Your task to perform on an android device: toggle pop-ups in chrome Image 0: 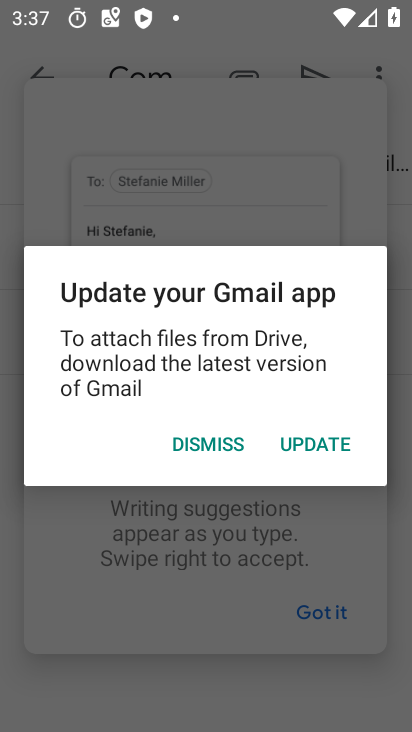
Step 0: press home button
Your task to perform on an android device: toggle pop-ups in chrome Image 1: 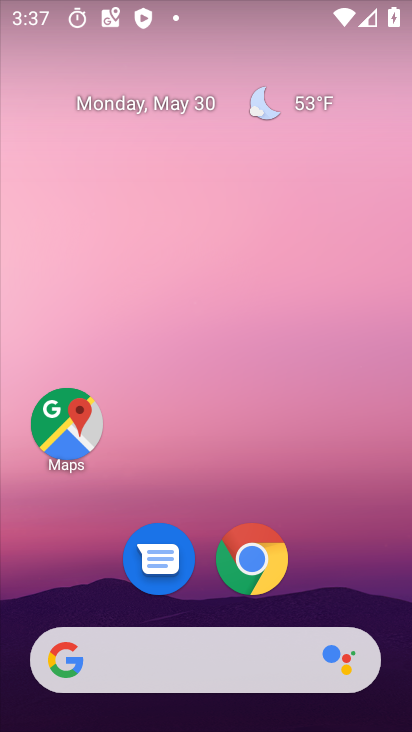
Step 1: click (256, 558)
Your task to perform on an android device: toggle pop-ups in chrome Image 2: 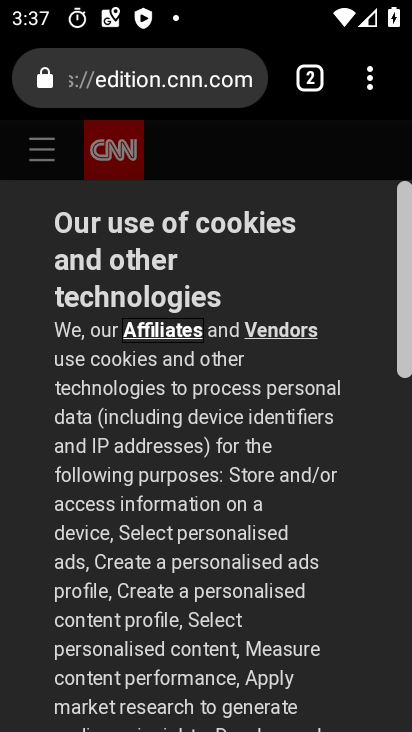
Step 2: click (371, 88)
Your task to perform on an android device: toggle pop-ups in chrome Image 3: 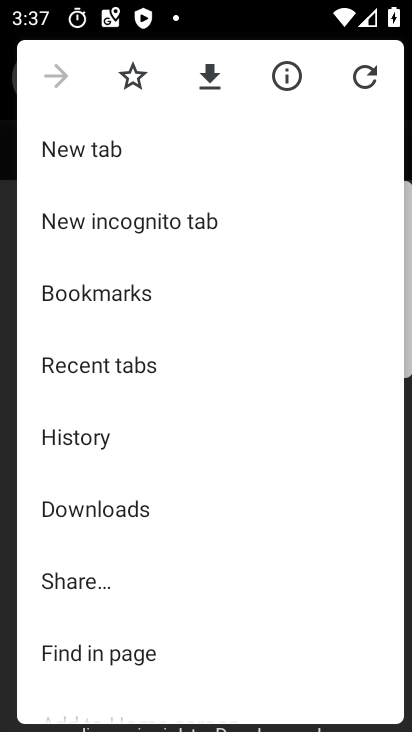
Step 3: drag from (110, 670) to (110, 417)
Your task to perform on an android device: toggle pop-ups in chrome Image 4: 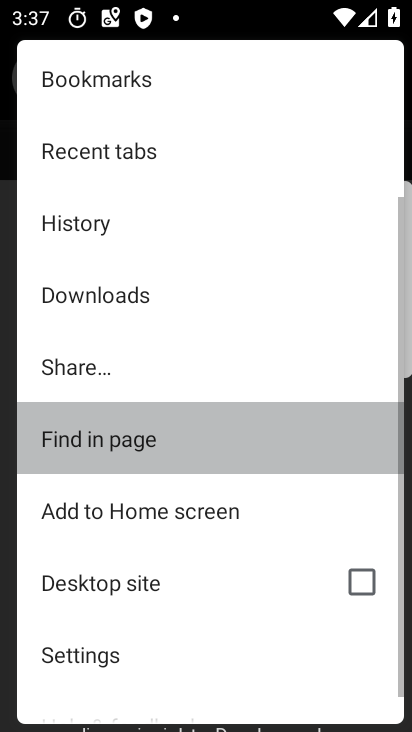
Step 4: drag from (126, 217) to (126, 169)
Your task to perform on an android device: toggle pop-ups in chrome Image 5: 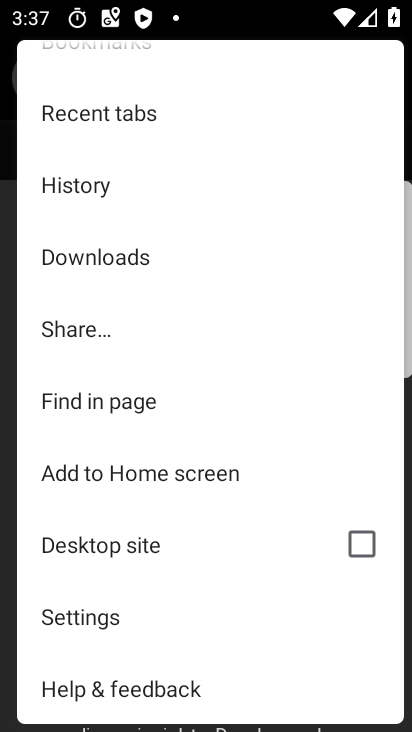
Step 5: click (83, 619)
Your task to perform on an android device: toggle pop-ups in chrome Image 6: 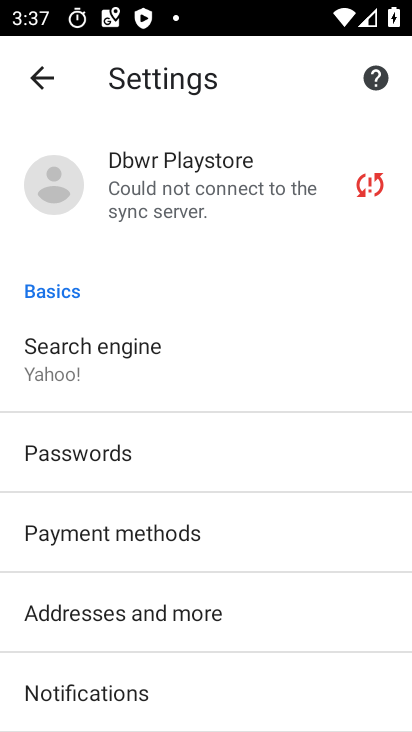
Step 6: drag from (161, 692) to (163, 308)
Your task to perform on an android device: toggle pop-ups in chrome Image 7: 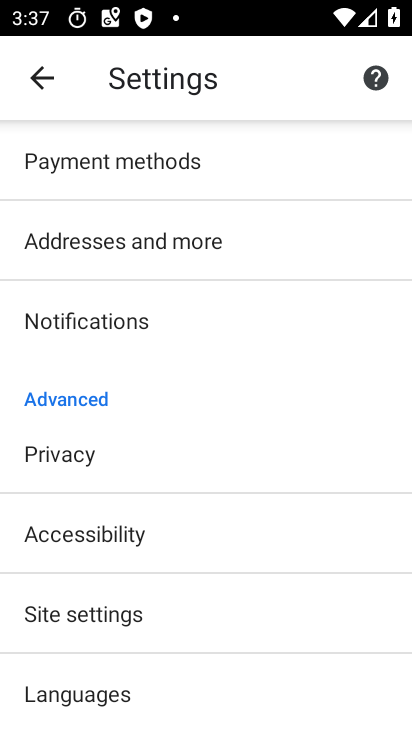
Step 7: click (117, 609)
Your task to perform on an android device: toggle pop-ups in chrome Image 8: 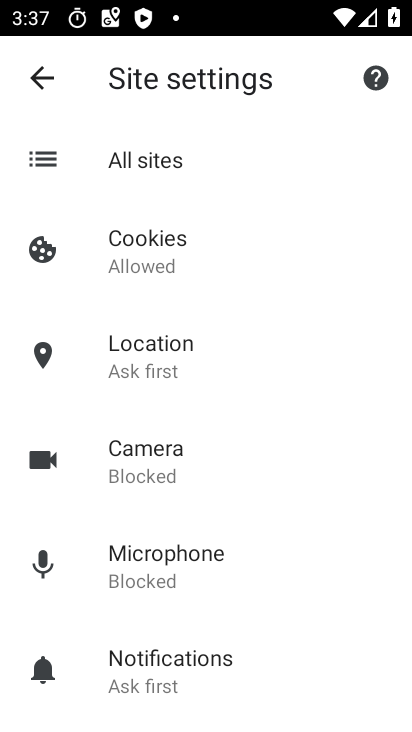
Step 8: drag from (182, 683) to (182, 607)
Your task to perform on an android device: toggle pop-ups in chrome Image 9: 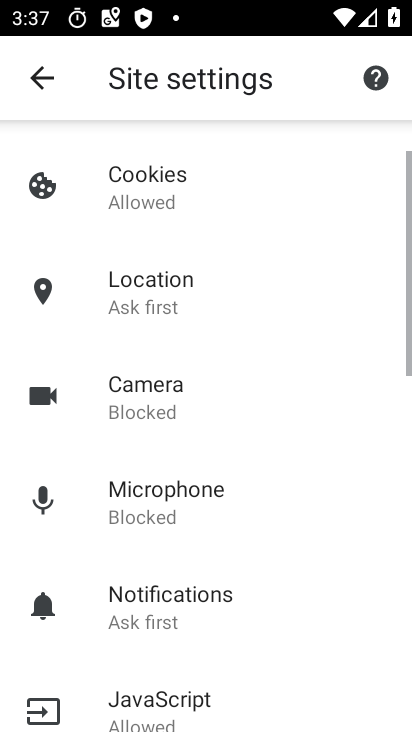
Step 9: drag from (186, 467) to (190, 309)
Your task to perform on an android device: toggle pop-ups in chrome Image 10: 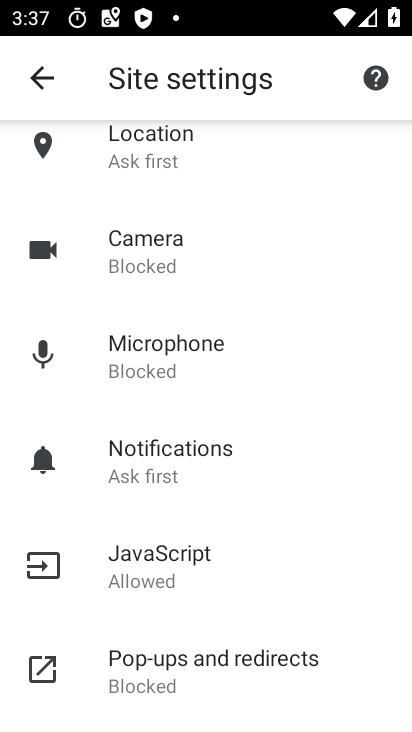
Step 10: click (184, 661)
Your task to perform on an android device: toggle pop-ups in chrome Image 11: 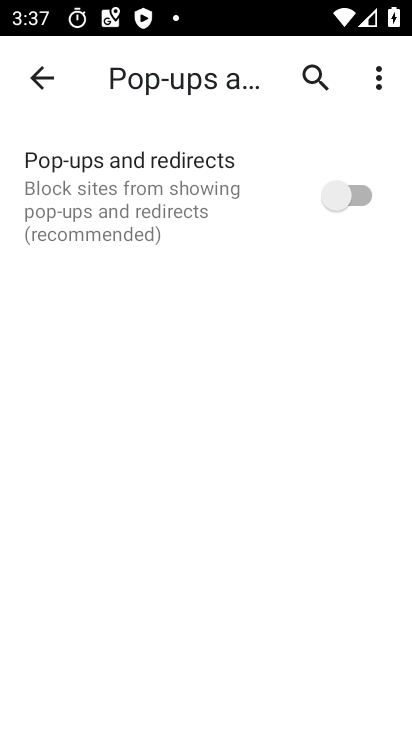
Step 11: click (359, 197)
Your task to perform on an android device: toggle pop-ups in chrome Image 12: 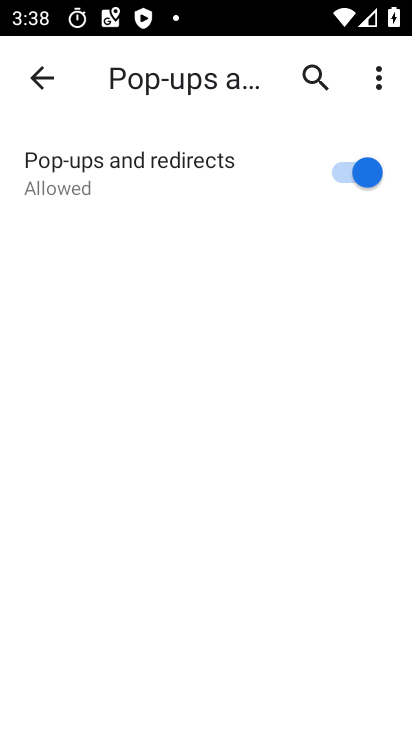
Step 12: task complete